Your task to perform on an android device: turn on translation in the chrome app Image 0: 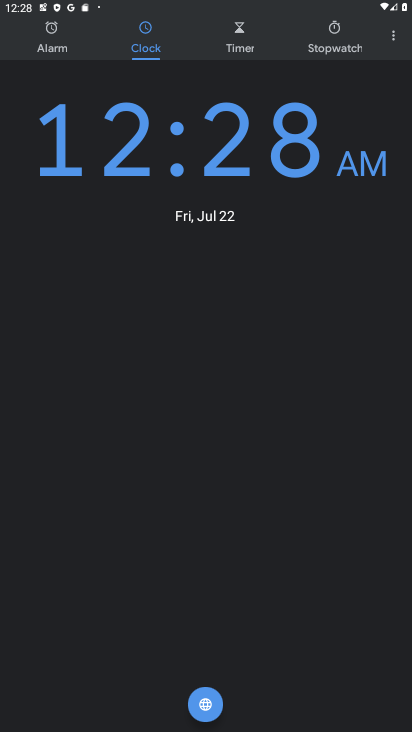
Step 0: press home button
Your task to perform on an android device: turn on translation in the chrome app Image 1: 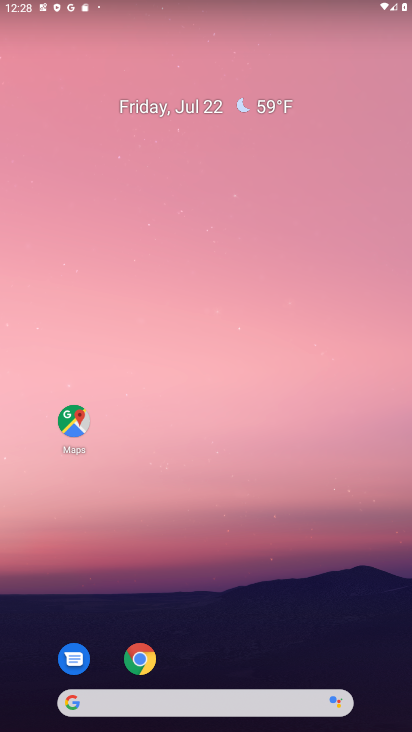
Step 1: drag from (291, 555) to (254, 211)
Your task to perform on an android device: turn on translation in the chrome app Image 2: 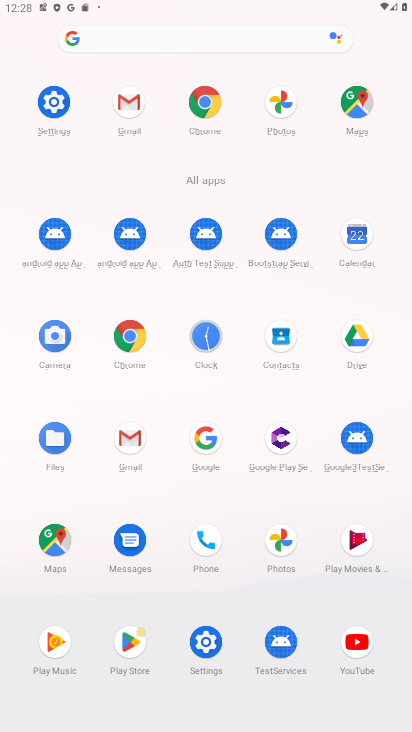
Step 2: click (199, 116)
Your task to perform on an android device: turn on translation in the chrome app Image 3: 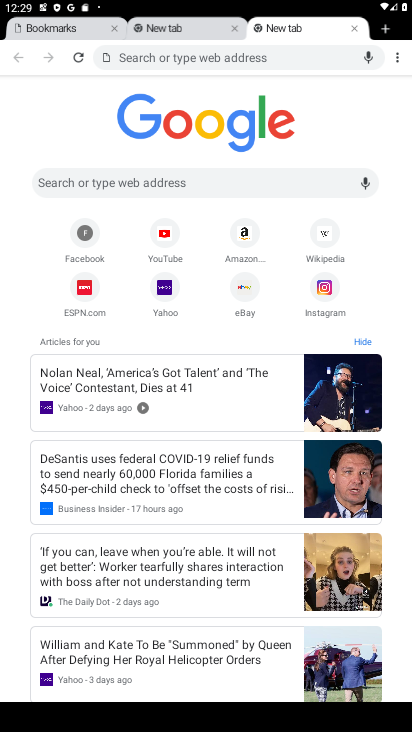
Step 3: click (359, 30)
Your task to perform on an android device: turn on translation in the chrome app Image 4: 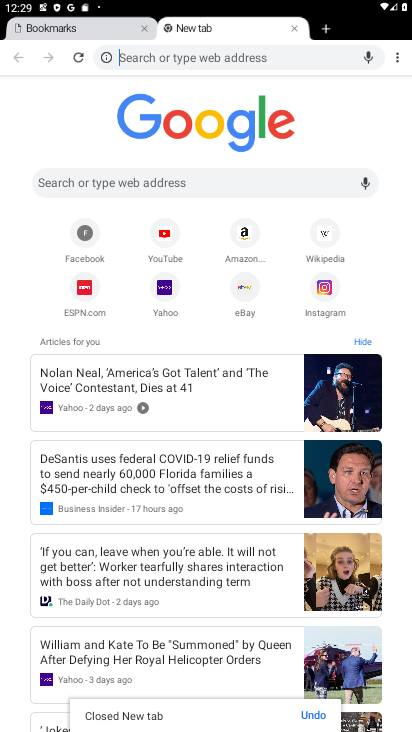
Step 4: click (295, 30)
Your task to perform on an android device: turn on translation in the chrome app Image 5: 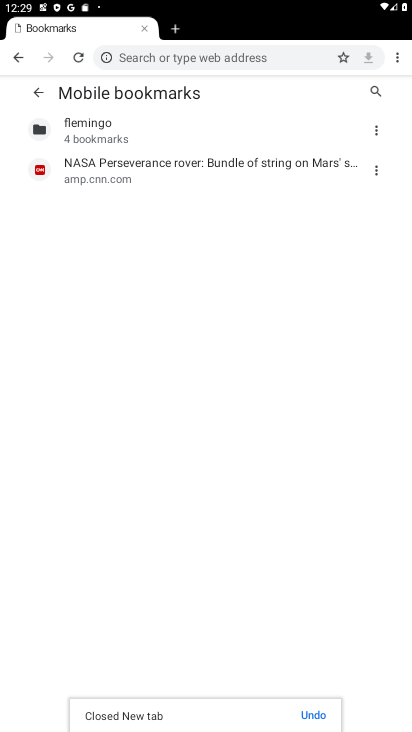
Step 5: drag from (396, 57) to (272, 263)
Your task to perform on an android device: turn on translation in the chrome app Image 6: 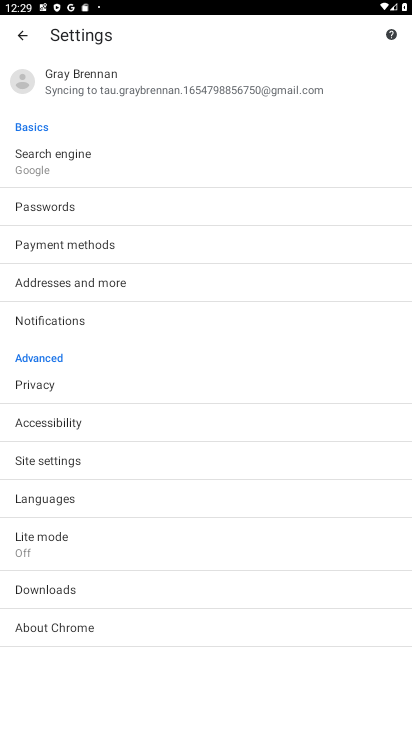
Step 6: drag from (197, 615) to (275, 267)
Your task to perform on an android device: turn on translation in the chrome app Image 7: 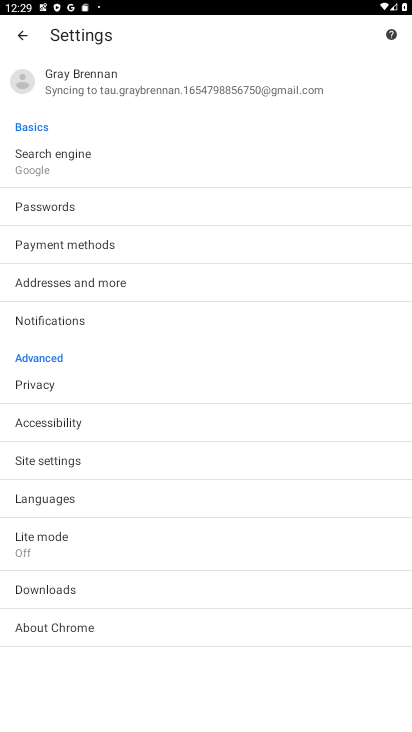
Step 7: click (66, 500)
Your task to perform on an android device: turn on translation in the chrome app Image 8: 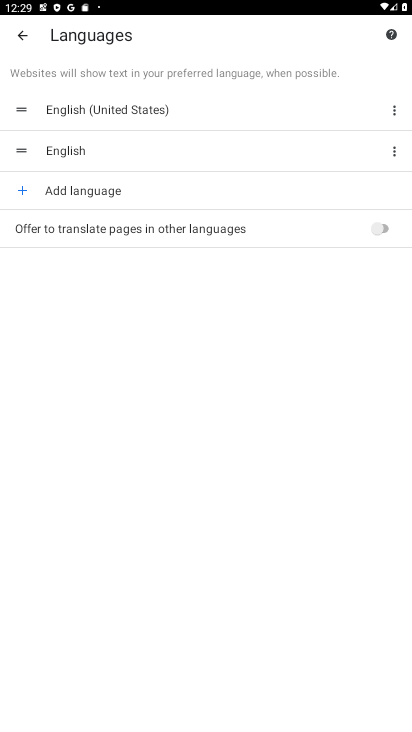
Step 8: click (376, 234)
Your task to perform on an android device: turn on translation in the chrome app Image 9: 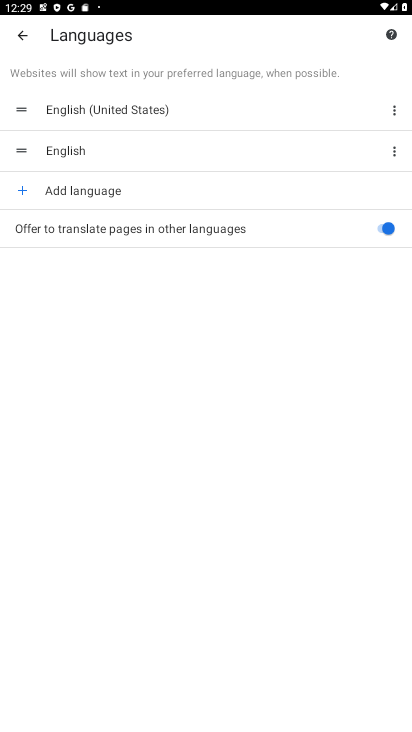
Step 9: task complete